Your task to perform on an android device: toggle pop-ups in chrome Image 0: 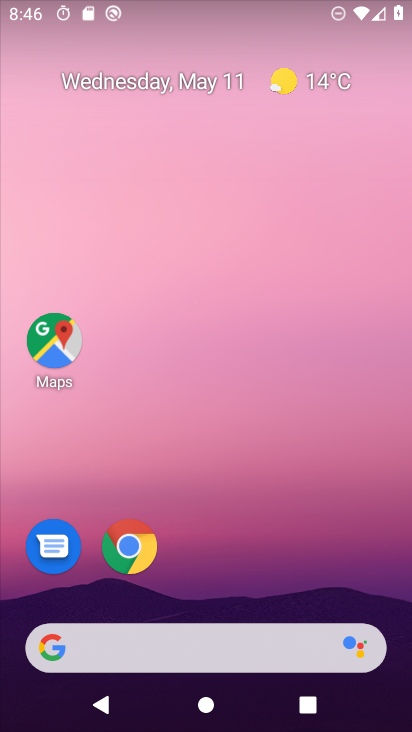
Step 0: drag from (166, 638) to (202, 191)
Your task to perform on an android device: toggle pop-ups in chrome Image 1: 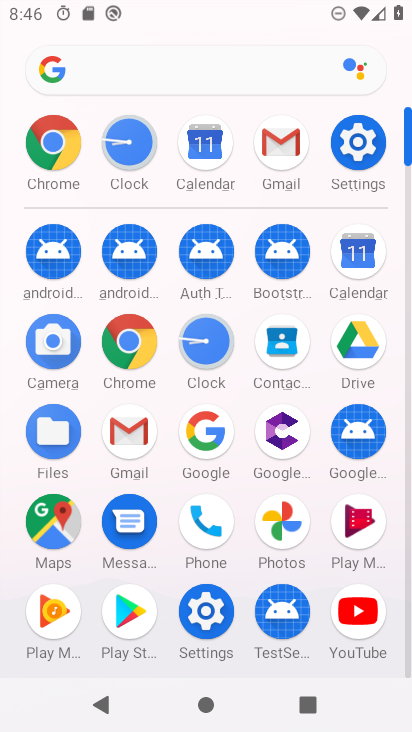
Step 1: click (122, 343)
Your task to perform on an android device: toggle pop-ups in chrome Image 2: 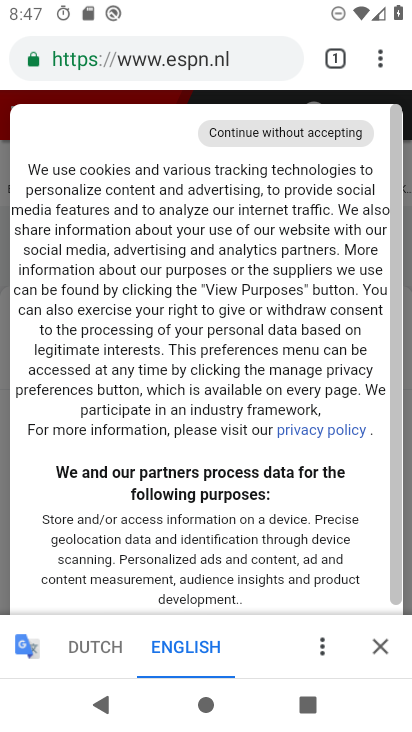
Step 2: drag from (381, 73) to (228, 567)
Your task to perform on an android device: toggle pop-ups in chrome Image 3: 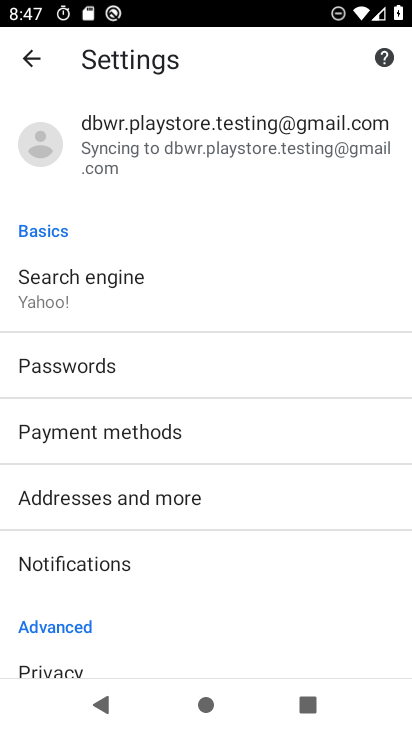
Step 3: drag from (121, 571) to (159, 230)
Your task to perform on an android device: toggle pop-ups in chrome Image 4: 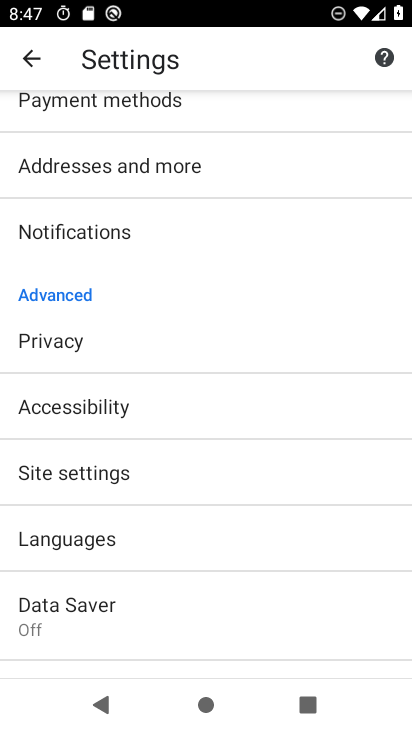
Step 4: click (147, 477)
Your task to perform on an android device: toggle pop-ups in chrome Image 5: 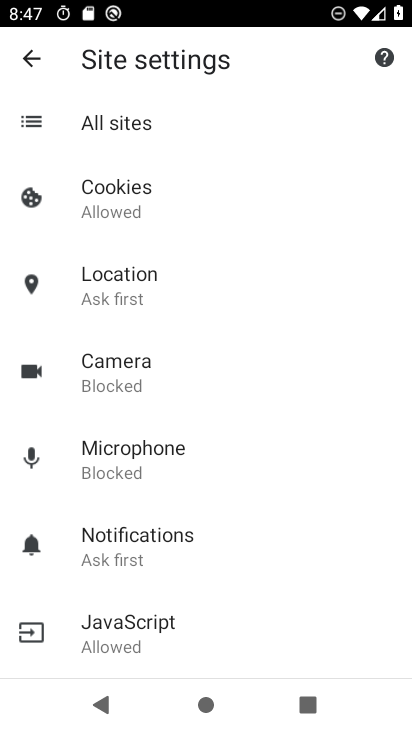
Step 5: drag from (177, 575) to (224, 211)
Your task to perform on an android device: toggle pop-ups in chrome Image 6: 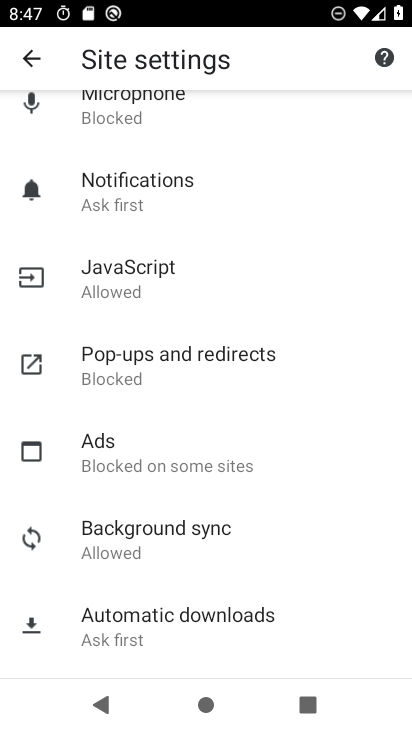
Step 6: click (142, 356)
Your task to perform on an android device: toggle pop-ups in chrome Image 7: 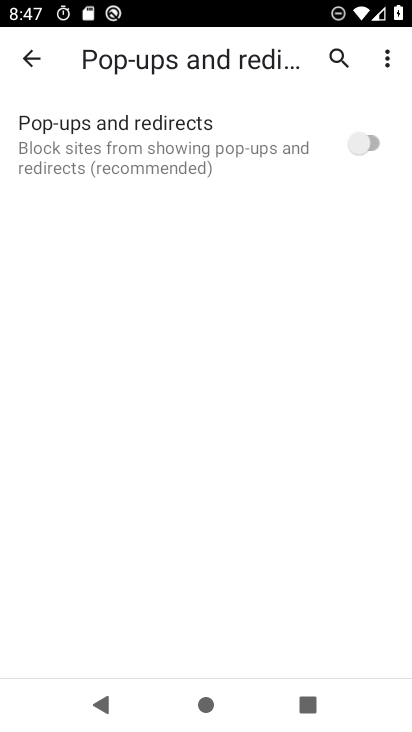
Step 7: click (364, 143)
Your task to perform on an android device: toggle pop-ups in chrome Image 8: 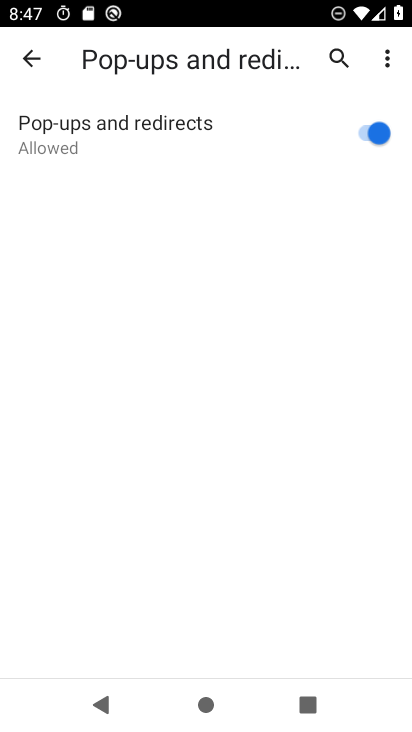
Step 8: task complete